Your task to perform on an android device: Open privacy settings Image 0: 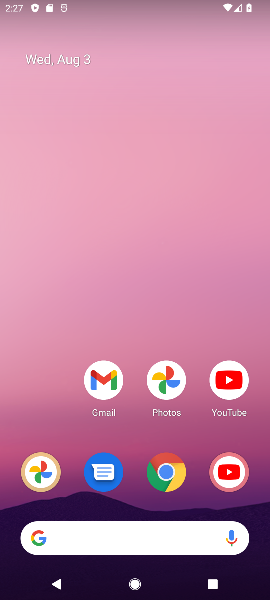
Step 0: drag from (198, 495) to (169, 193)
Your task to perform on an android device: Open privacy settings Image 1: 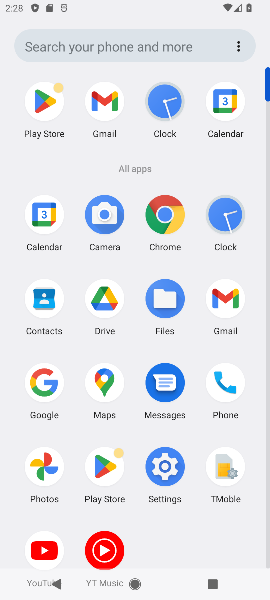
Step 1: click (166, 490)
Your task to perform on an android device: Open privacy settings Image 2: 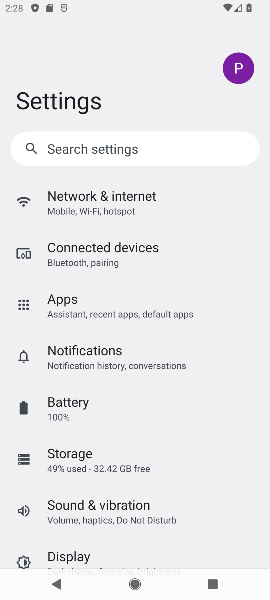
Step 2: drag from (166, 490) to (170, 330)
Your task to perform on an android device: Open privacy settings Image 3: 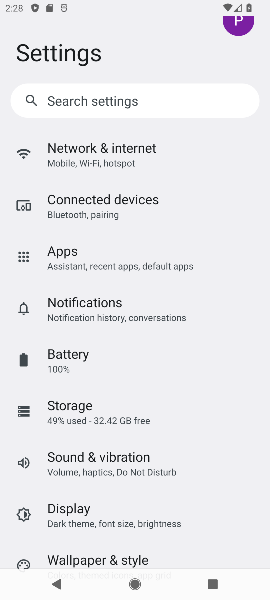
Step 3: drag from (137, 486) to (135, 308)
Your task to perform on an android device: Open privacy settings Image 4: 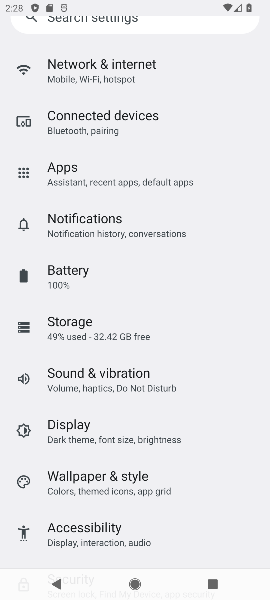
Step 4: drag from (124, 444) to (160, 155)
Your task to perform on an android device: Open privacy settings Image 5: 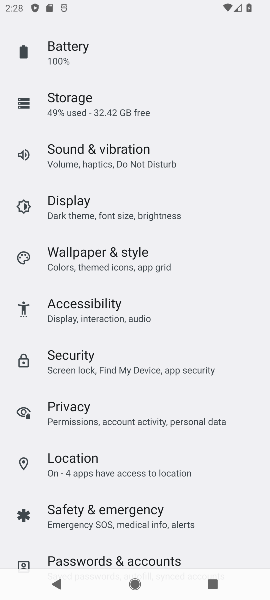
Step 5: click (82, 416)
Your task to perform on an android device: Open privacy settings Image 6: 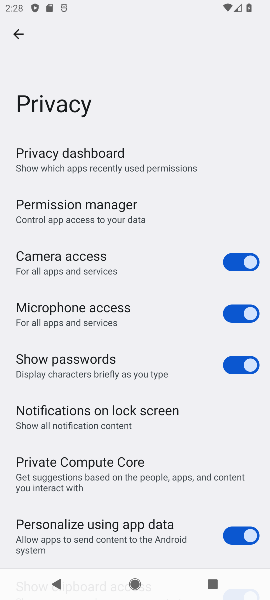
Step 6: task complete